Your task to perform on an android device: turn off translation in the chrome app Image 0: 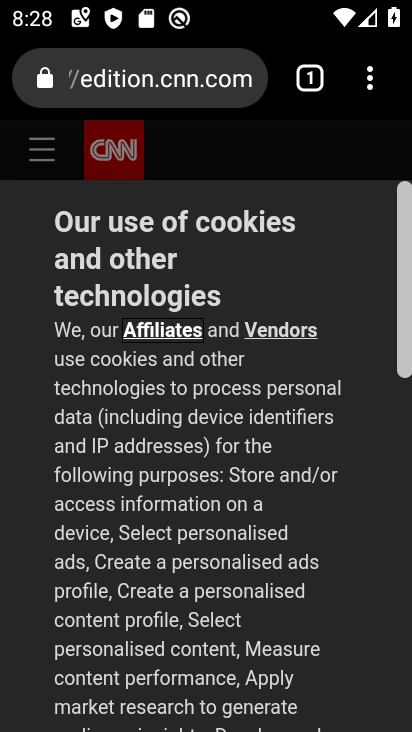
Step 0: press home button
Your task to perform on an android device: turn off translation in the chrome app Image 1: 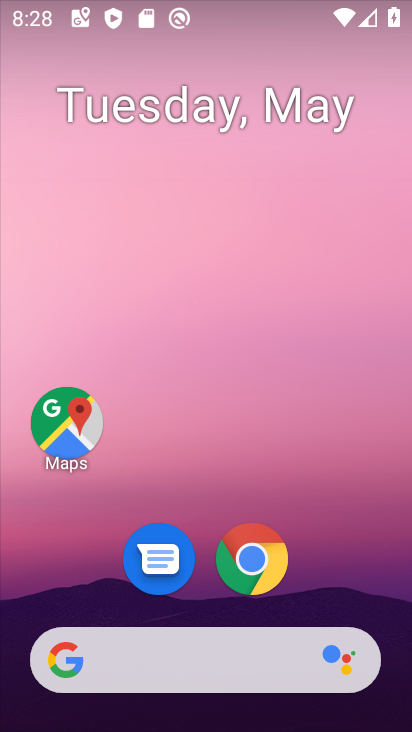
Step 1: click (240, 569)
Your task to perform on an android device: turn off translation in the chrome app Image 2: 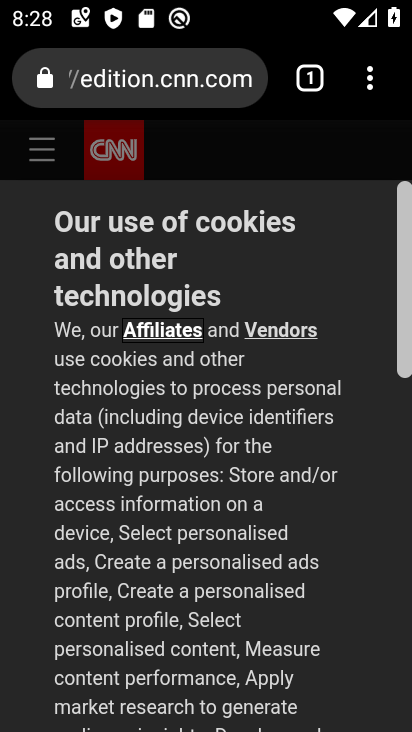
Step 2: drag from (366, 67) to (95, 614)
Your task to perform on an android device: turn off translation in the chrome app Image 3: 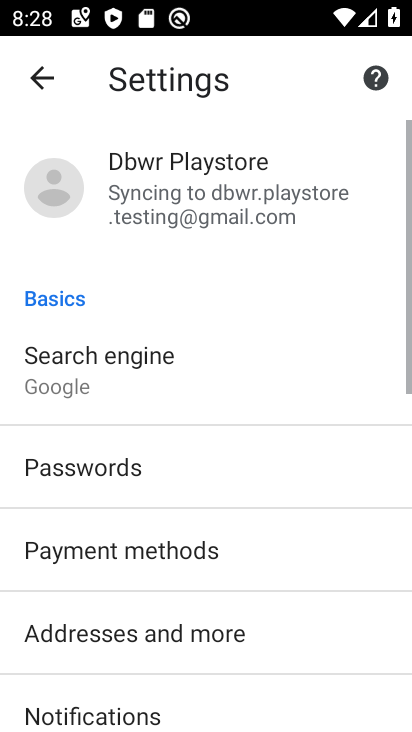
Step 3: drag from (186, 640) to (150, 205)
Your task to perform on an android device: turn off translation in the chrome app Image 4: 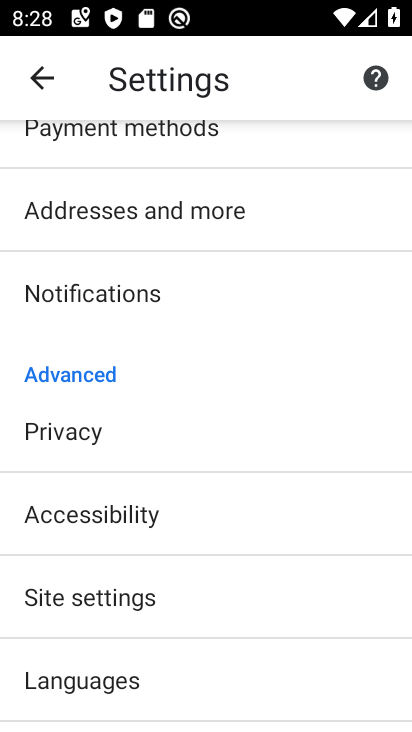
Step 4: click (111, 689)
Your task to perform on an android device: turn off translation in the chrome app Image 5: 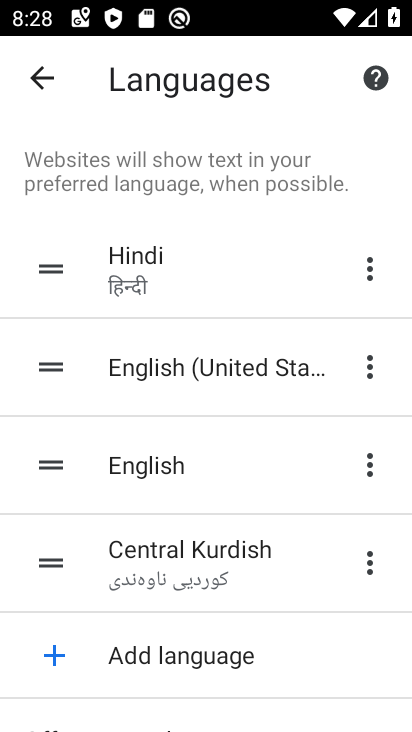
Step 5: drag from (223, 606) to (223, 308)
Your task to perform on an android device: turn off translation in the chrome app Image 6: 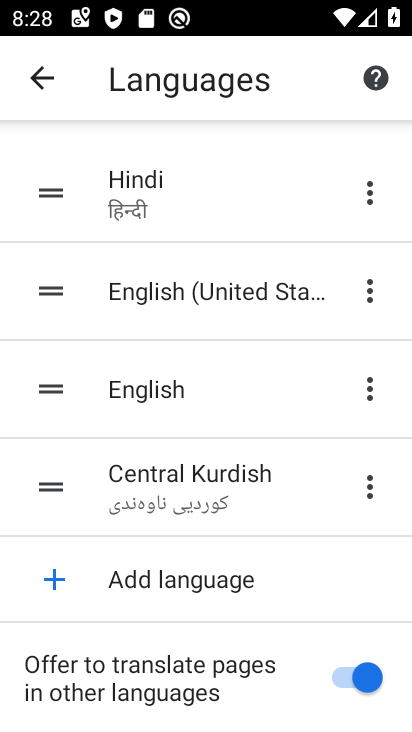
Step 6: click (365, 688)
Your task to perform on an android device: turn off translation in the chrome app Image 7: 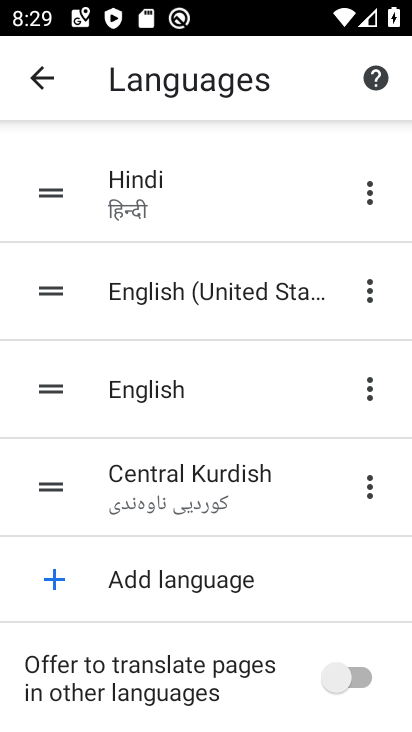
Step 7: task complete